Your task to perform on an android device: Go to sound settings Image 0: 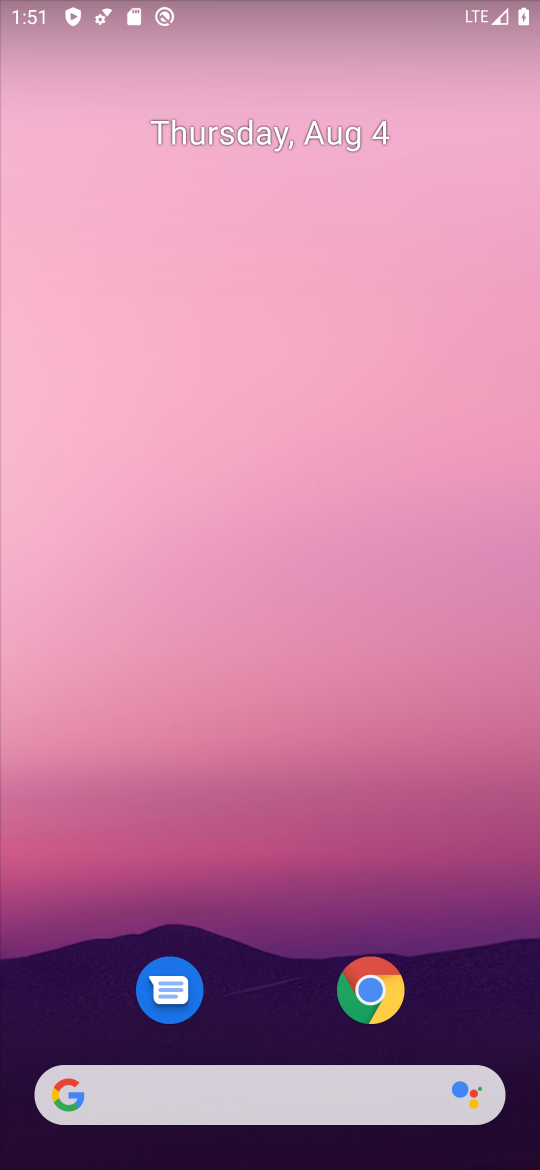
Step 0: drag from (284, 1048) to (62, 897)
Your task to perform on an android device: Go to sound settings Image 1: 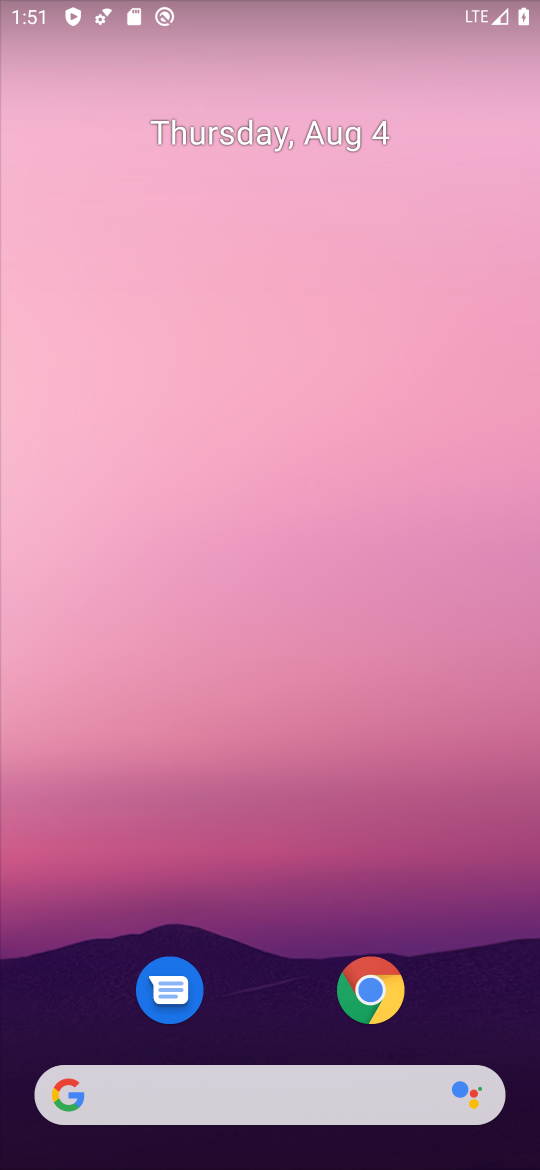
Step 1: drag from (254, 1026) to (181, 392)
Your task to perform on an android device: Go to sound settings Image 2: 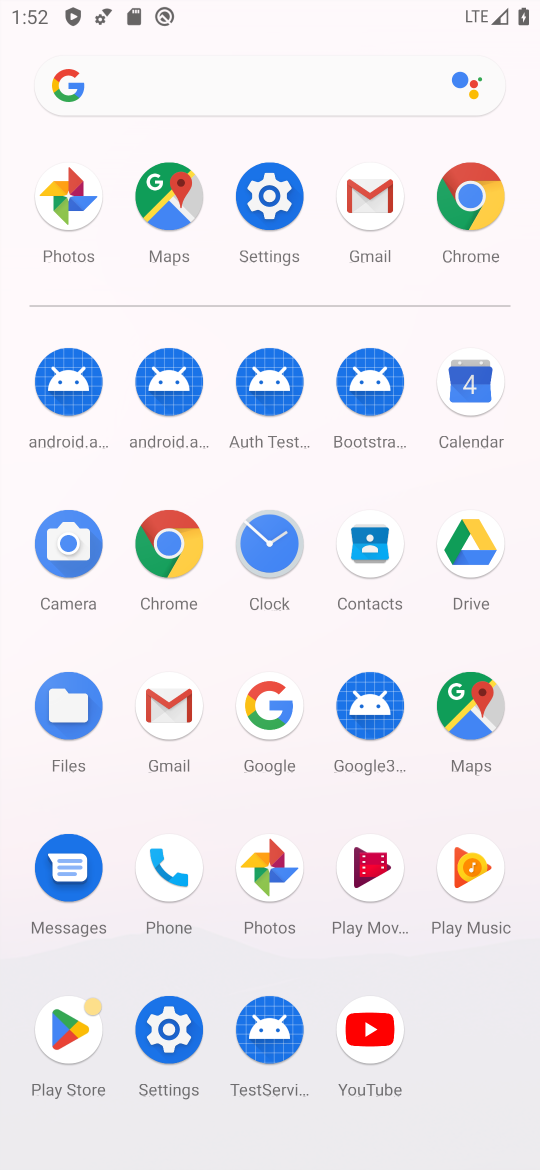
Step 2: click (247, 180)
Your task to perform on an android device: Go to sound settings Image 3: 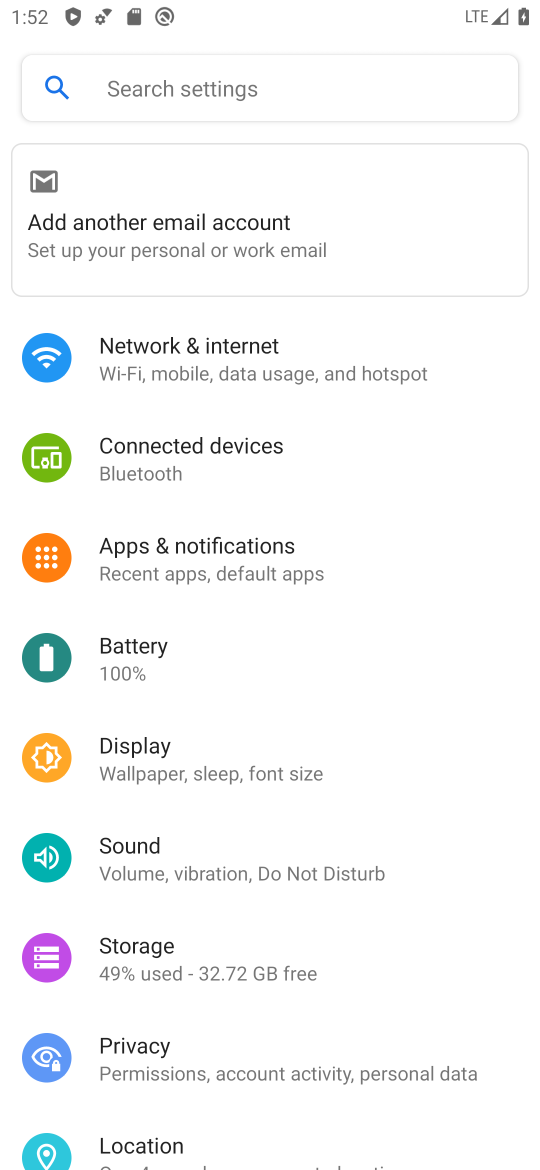
Step 3: drag from (247, 180) to (139, 335)
Your task to perform on an android device: Go to sound settings Image 4: 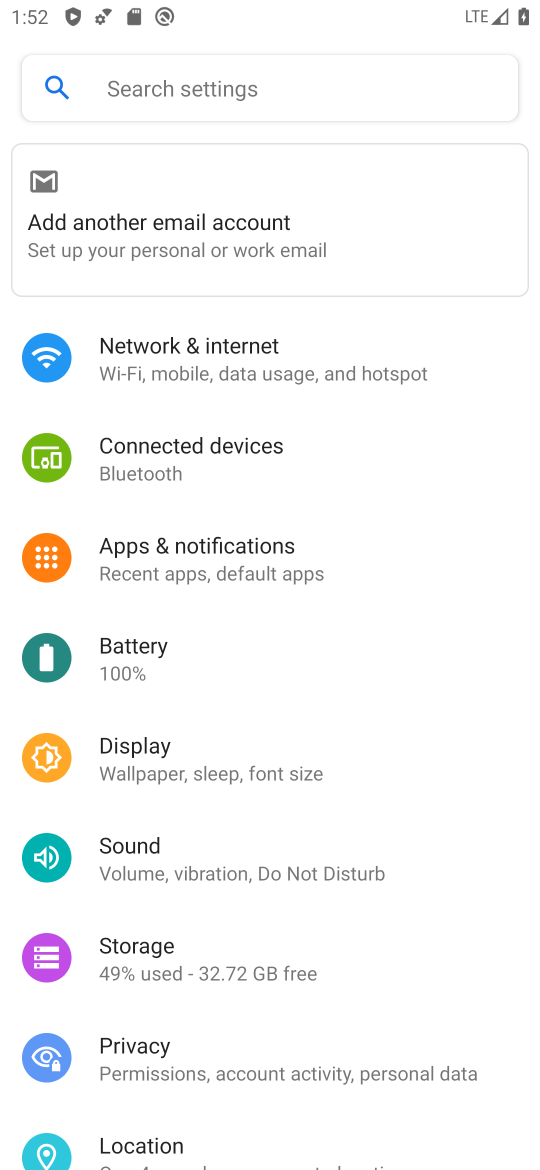
Step 4: click (311, 895)
Your task to perform on an android device: Go to sound settings Image 5: 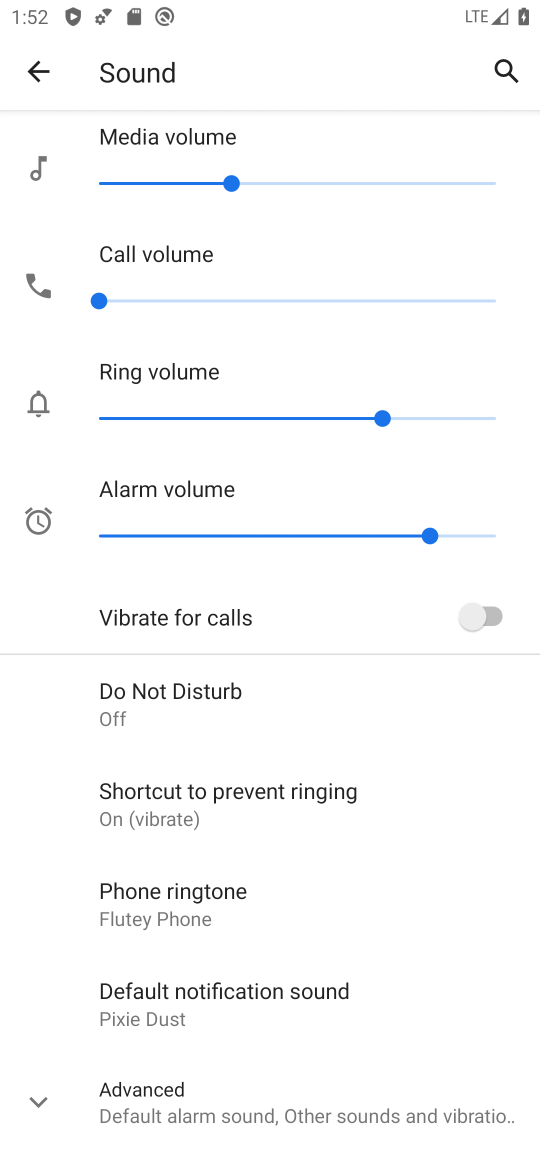
Step 5: task complete